Your task to perform on an android device: Open Google Chrome Image 0: 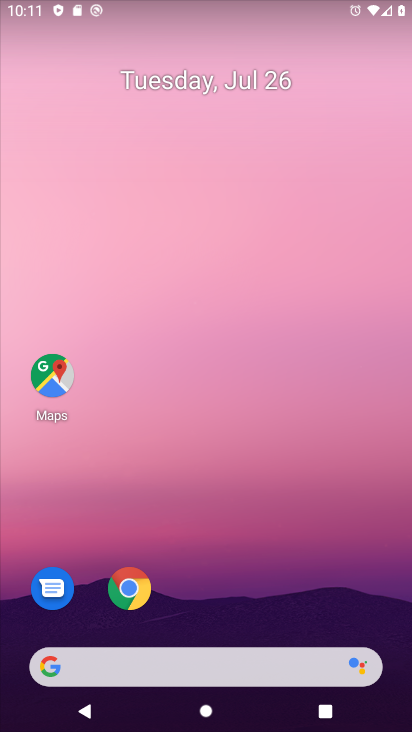
Step 0: click (131, 586)
Your task to perform on an android device: Open Google Chrome Image 1: 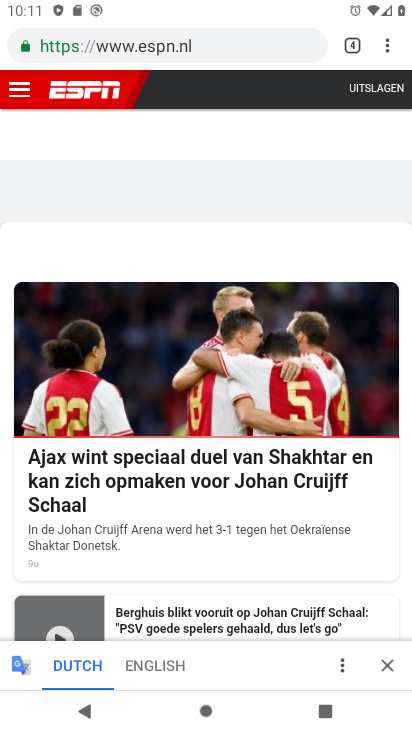
Step 1: task complete